Your task to perform on an android device: find snoozed emails in the gmail app Image 0: 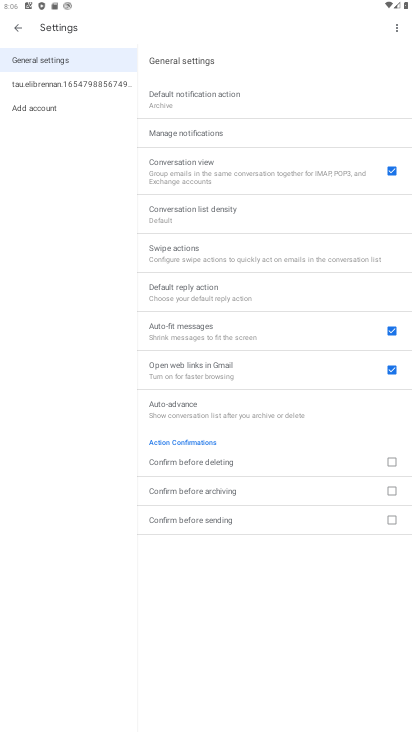
Step 0: press home button
Your task to perform on an android device: find snoozed emails in the gmail app Image 1: 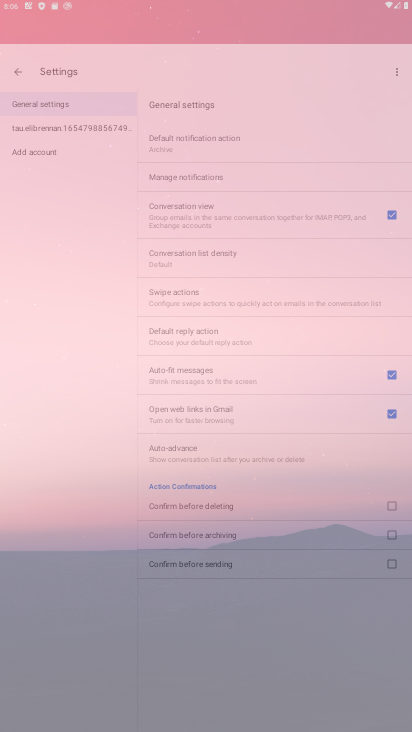
Step 1: drag from (267, 614) to (276, 119)
Your task to perform on an android device: find snoozed emails in the gmail app Image 2: 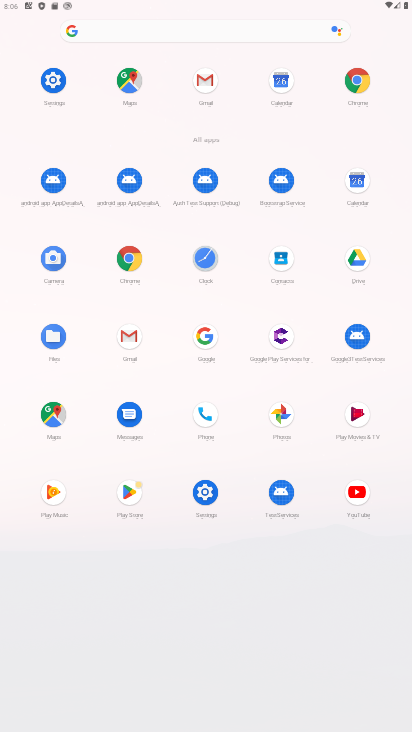
Step 2: click (152, 343)
Your task to perform on an android device: find snoozed emails in the gmail app Image 3: 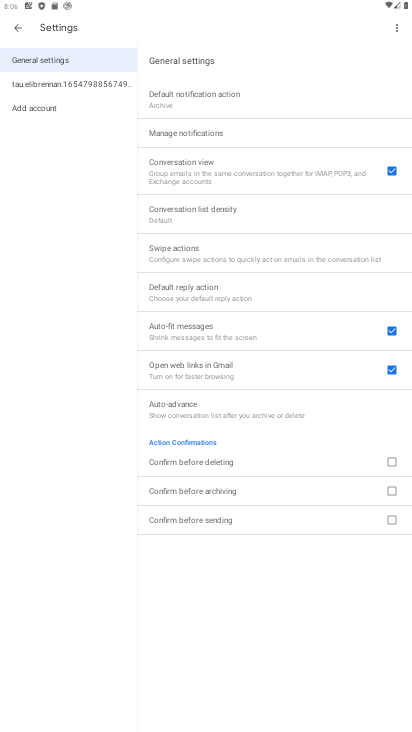
Step 3: click (10, 22)
Your task to perform on an android device: find snoozed emails in the gmail app Image 4: 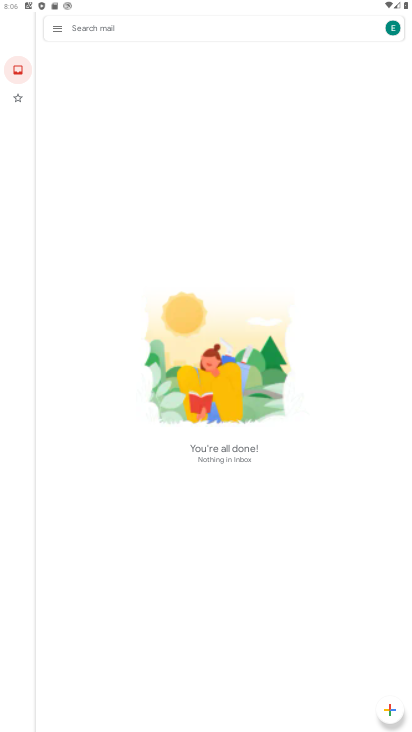
Step 4: click (55, 23)
Your task to perform on an android device: find snoozed emails in the gmail app Image 5: 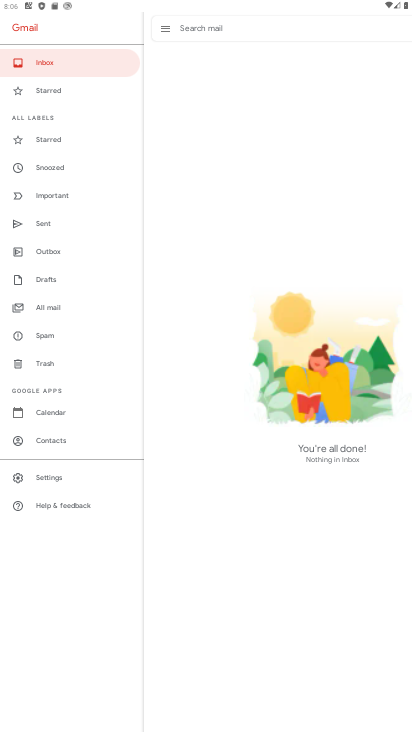
Step 5: drag from (28, 141) to (61, 192)
Your task to perform on an android device: find snoozed emails in the gmail app Image 6: 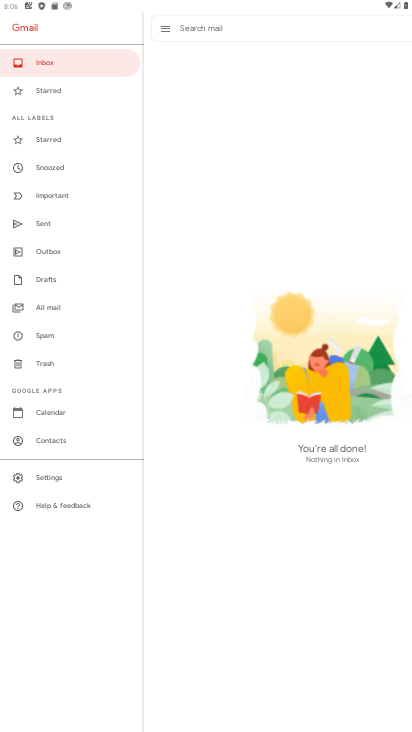
Step 6: click (47, 171)
Your task to perform on an android device: find snoozed emails in the gmail app Image 7: 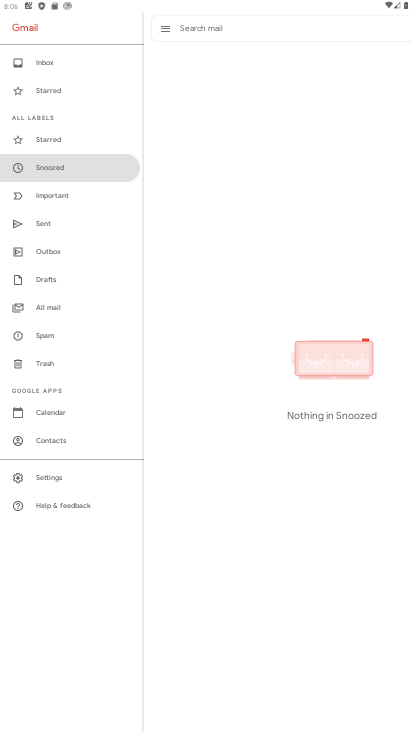
Step 7: task complete